Your task to perform on an android device: Open accessibility settings Image 0: 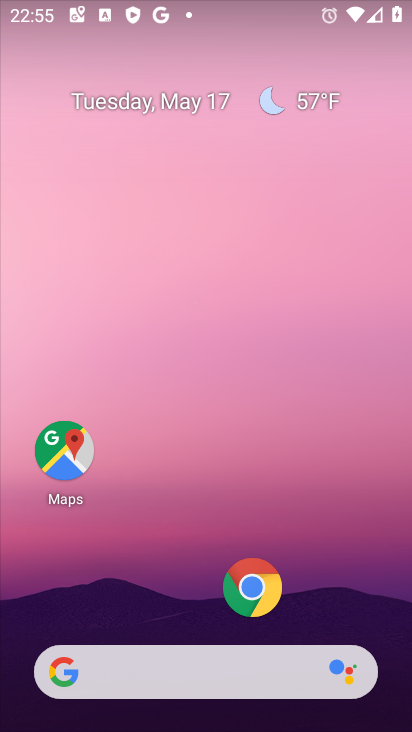
Step 0: click (365, 439)
Your task to perform on an android device: Open accessibility settings Image 1: 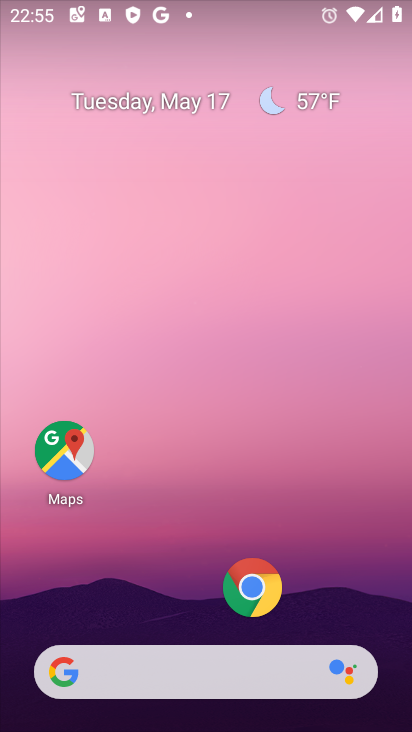
Step 1: drag from (255, 497) to (269, 204)
Your task to perform on an android device: Open accessibility settings Image 2: 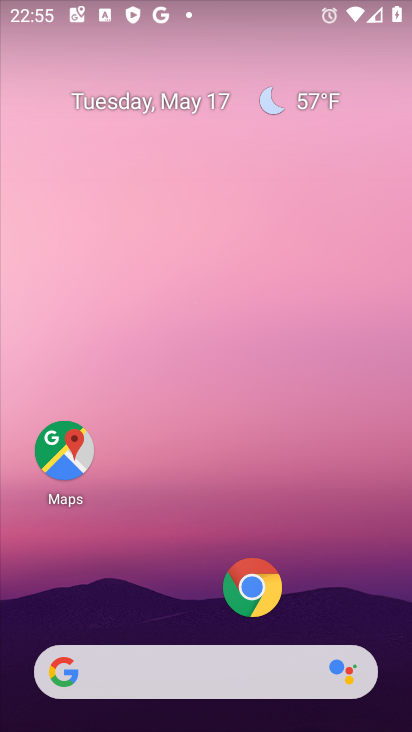
Step 2: drag from (184, 533) to (249, 119)
Your task to perform on an android device: Open accessibility settings Image 3: 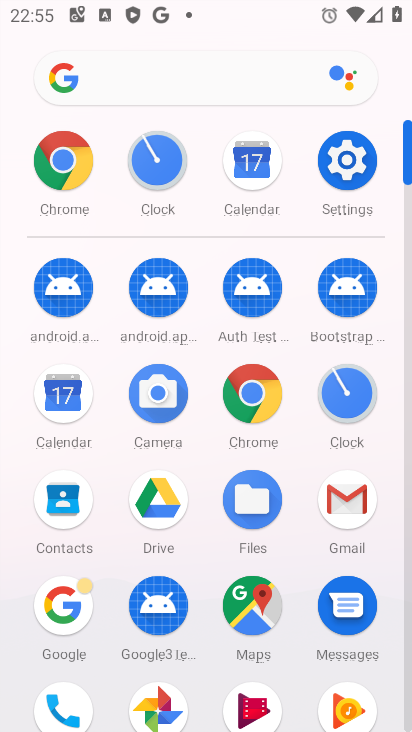
Step 3: click (357, 176)
Your task to perform on an android device: Open accessibility settings Image 4: 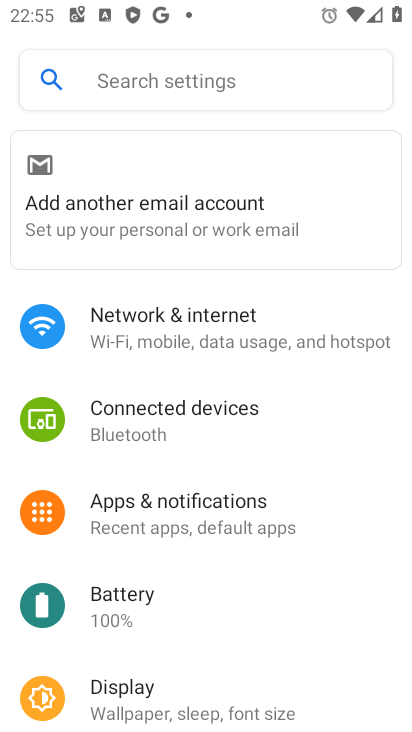
Step 4: drag from (260, 585) to (281, 122)
Your task to perform on an android device: Open accessibility settings Image 5: 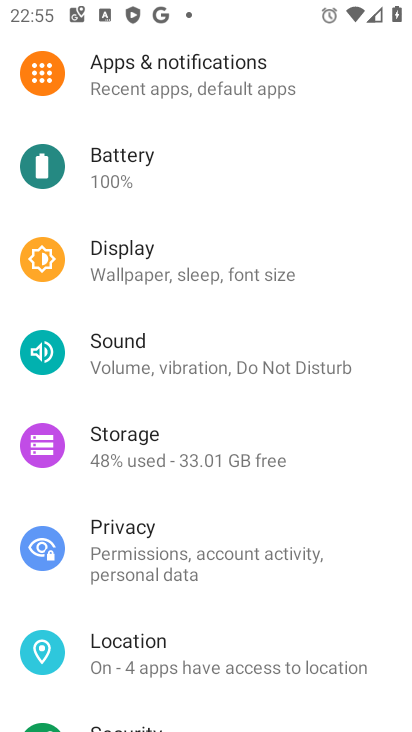
Step 5: drag from (229, 677) to (242, 303)
Your task to perform on an android device: Open accessibility settings Image 6: 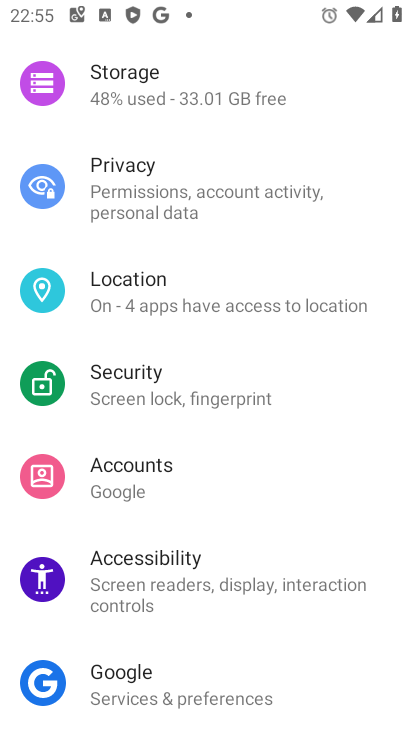
Step 6: click (235, 558)
Your task to perform on an android device: Open accessibility settings Image 7: 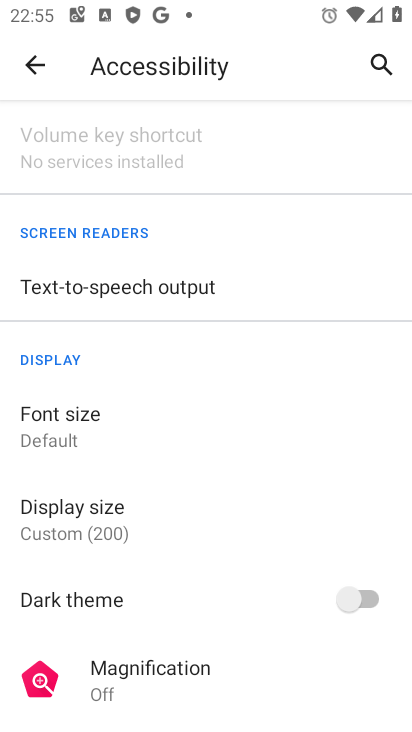
Step 7: task complete